Your task to perform on an android device: change timer sound Image 0: 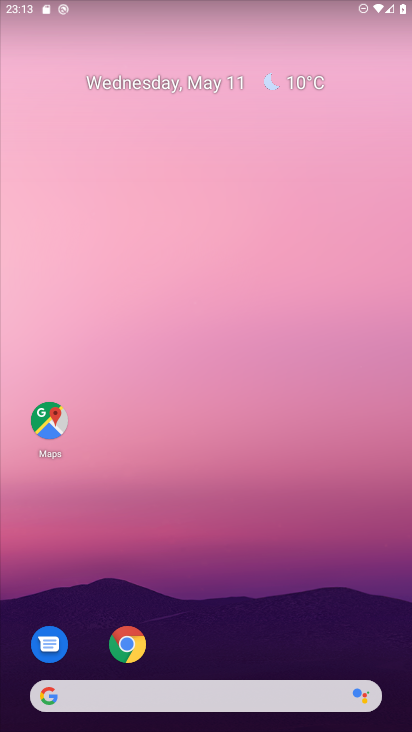
Step 0: click (382, 584)
Your task to perform on an android device: change timer sound Image 1: 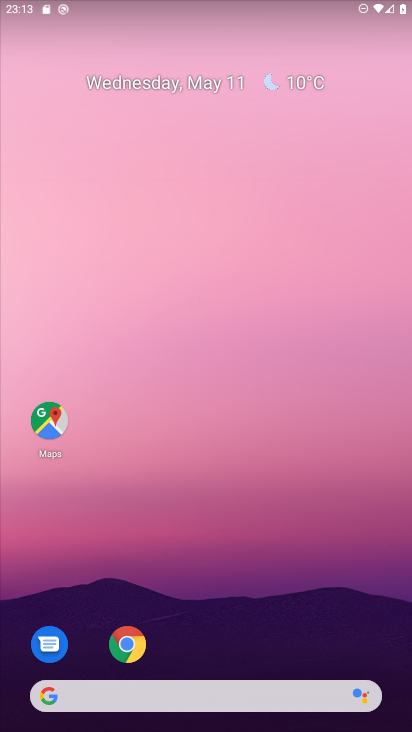
Step 1: drag from (382, 584) to (291, 20)
Your task to perform on an android device: change timer sound Image 2: 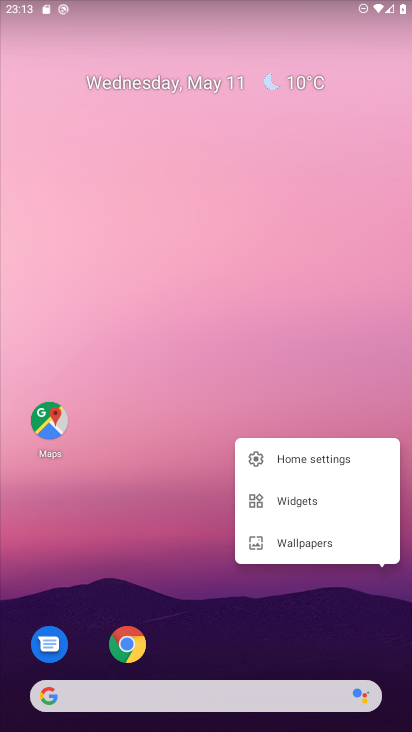
Step 2: click (271, 328)
Your task to perform on an android device: change timer sound Image 3: 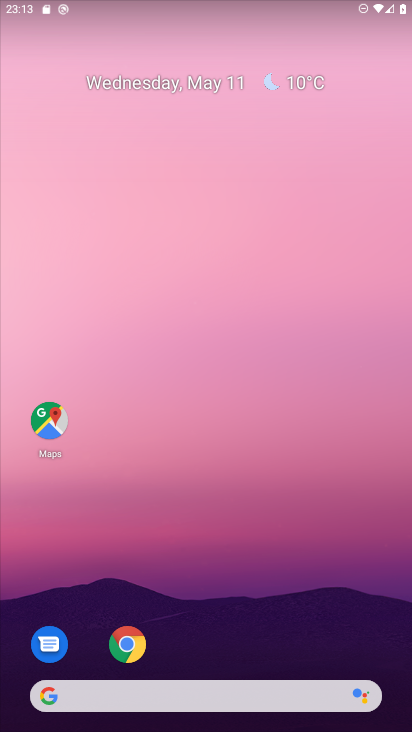
Step 3: drag from (353, 586) to (377, 6)
Your task to perform on an android device: change timer sound Image 4: 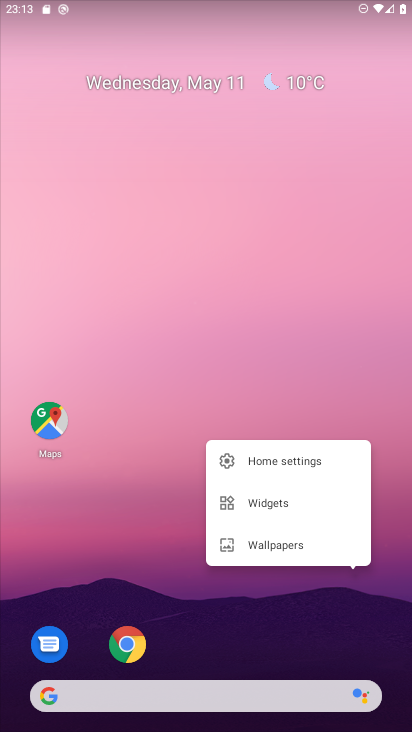
Step 4: click (391, 598)
Your task to perform on an android device: change timer sound Image 5: 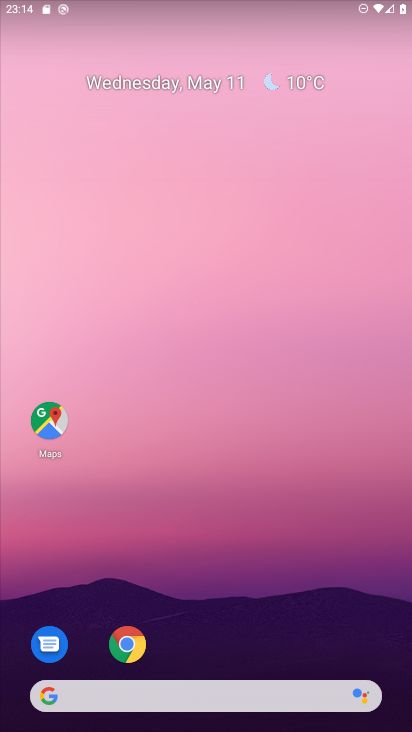
Step 5: drag from (391, 598) to (309, 4)
Your task to perform on an android device: change timer sound Image 6: 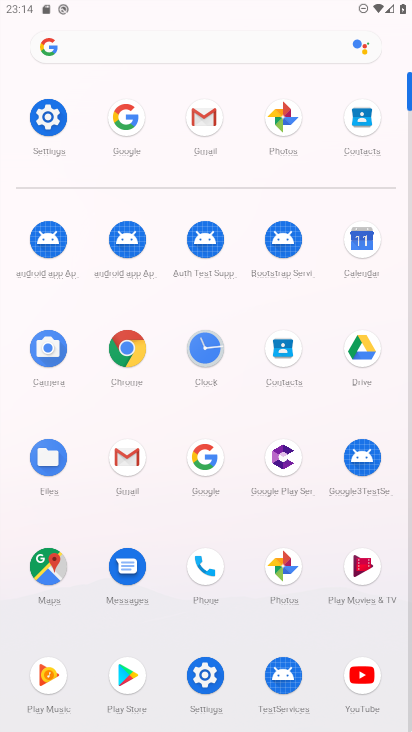
Step 6: click (209, 336)
Your task to perform on an android device: change timer sound Image 7: 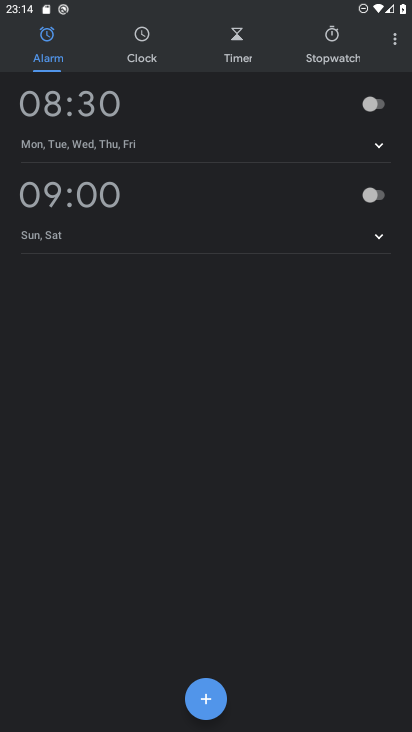
Step 7: click (392, 37)
Your task to perform on an android device: change timer sound Image 8: 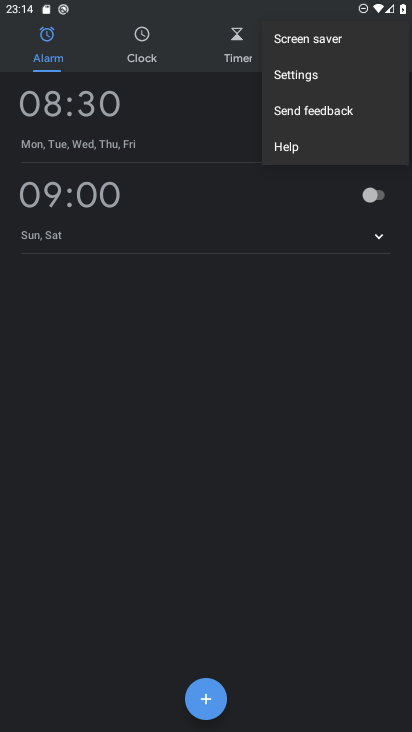
Step 8: click (324, 74)
Your task to perform on an android device: change timer sound Image 9: 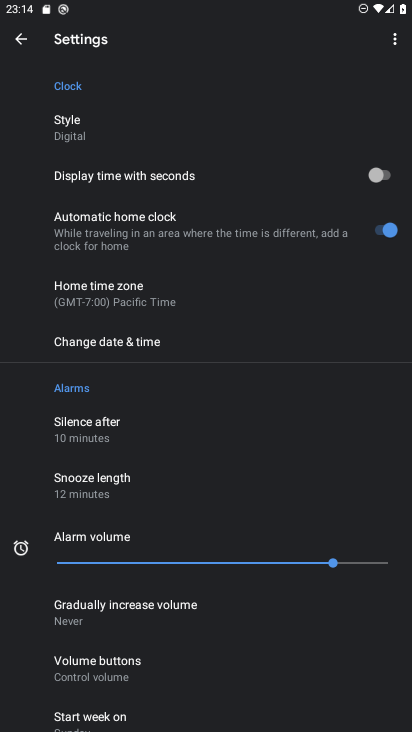
Step 9: drag from (360, 648) to (318, 323)
Your task to perform on an android device: change timer sound Image 10: 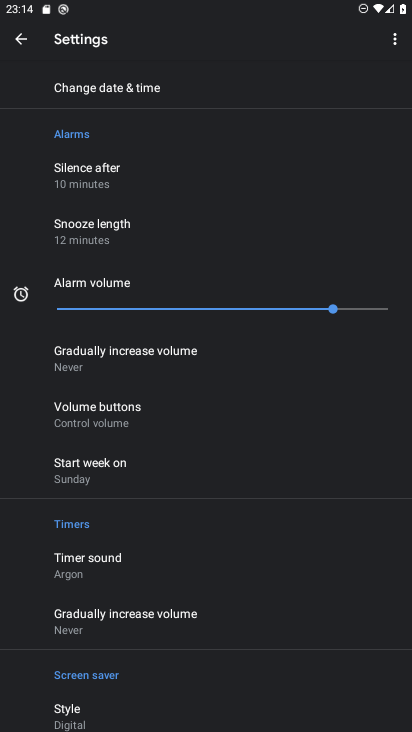
Step 10: click (75, 563)
Your task to perform on an android device: change timer sound Image 11: 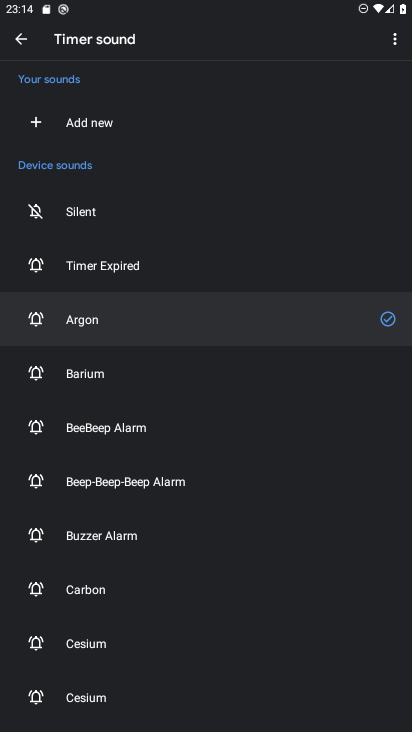
Step 11: click (88, 434)
Your task to perform on an android device: change timer sound Image 12: 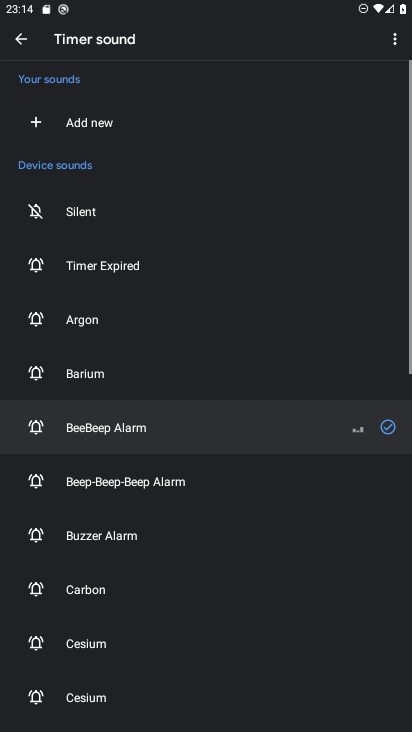
Step 12: click (88, 434)
Your task to perform on an android device: change timer sound Image 13: 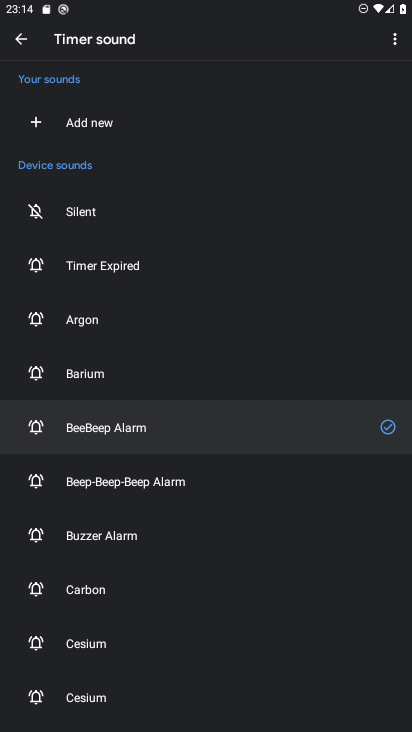
Step 13: task complete